Your task to perform on an android device: Open Google Image 0: 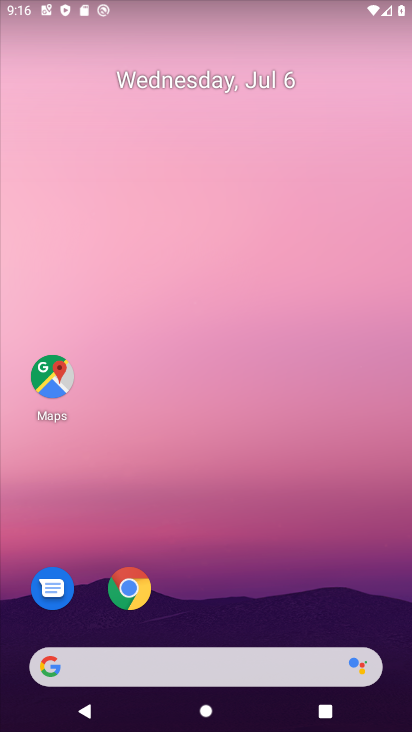
Step 0: drag from (177, 671) to (369, 32)
Your task to perform on an android device: Open Google Image 1: 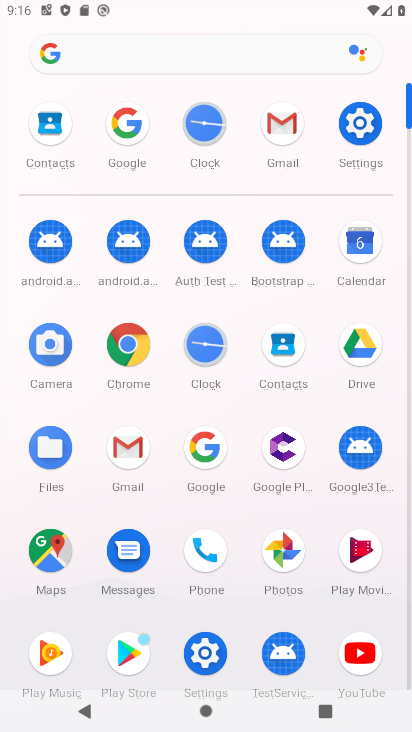
Step 1: click (208, 449)
Your task to perform on an android device: Open Google Image 2: 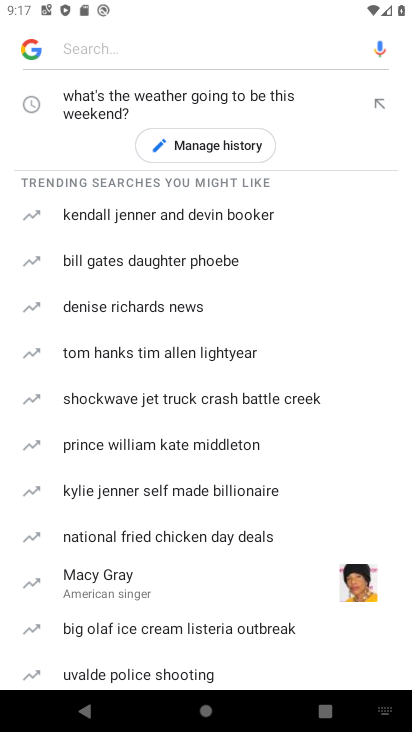
Step 2: task complete